Your task to perform on an android device: Open sound settings Image 0: 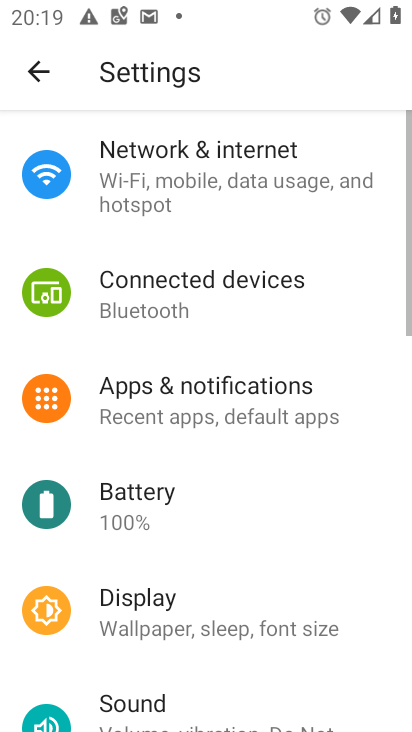
Step 0: click (144, 698)
Your task to perform on an android device: Open sound settings Image 1: 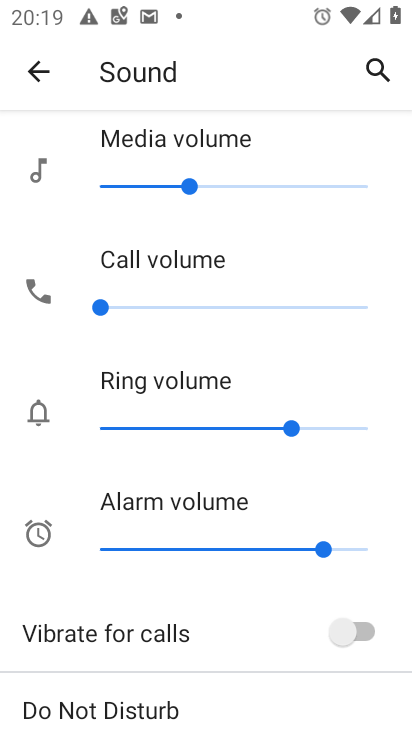
Step 1: task complete